Your task to perform on an android device: check the backup settings in the google photos Image 0: 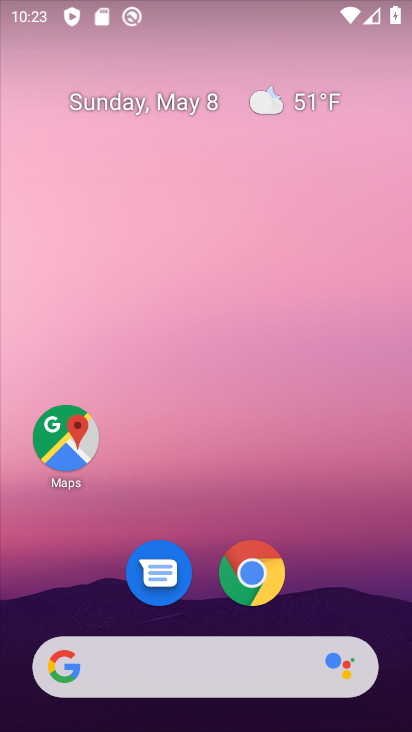
Step 0: drag from (172, 610) to (217, 243)
Your task to perform on an android device: check the backup settings in the google photos Image 1: 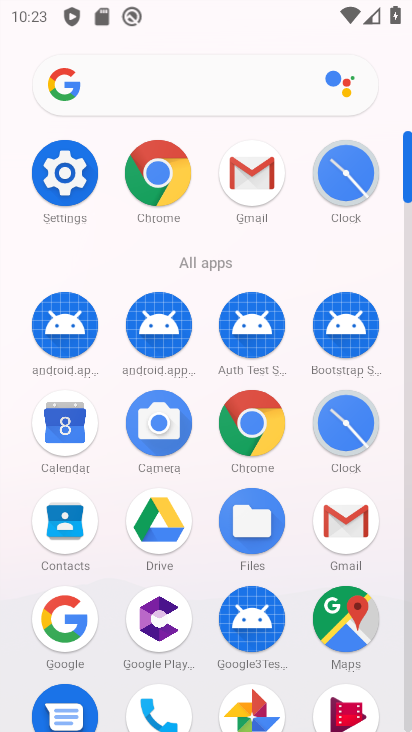
Step 1: click (252, 723)
Your task to perform on an android device: check the backup settings in the google photos Image 2: 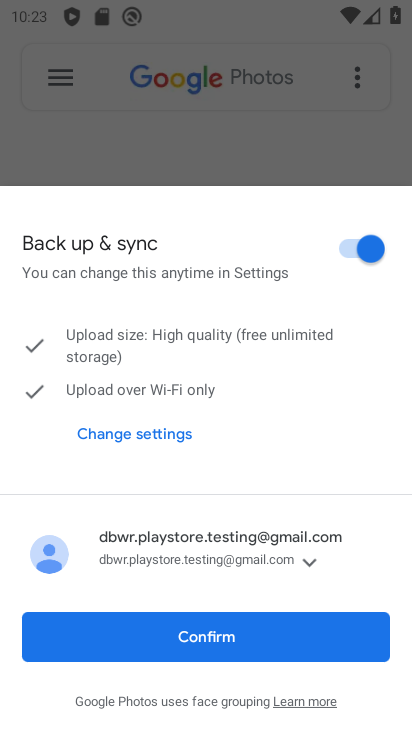
Step 2: click (198, 610)
Your task to perform on an android device: check the backup settings in the google photos Image 3: 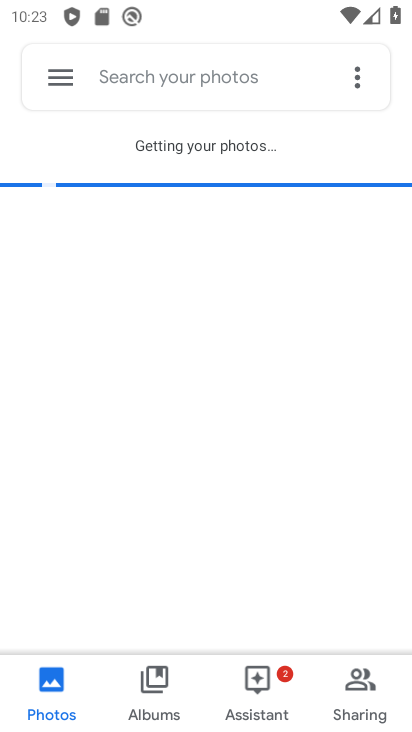
Step 3: click (70, 78)
Your task to perform on an android device: check the backup settings in the google photos Image 4: 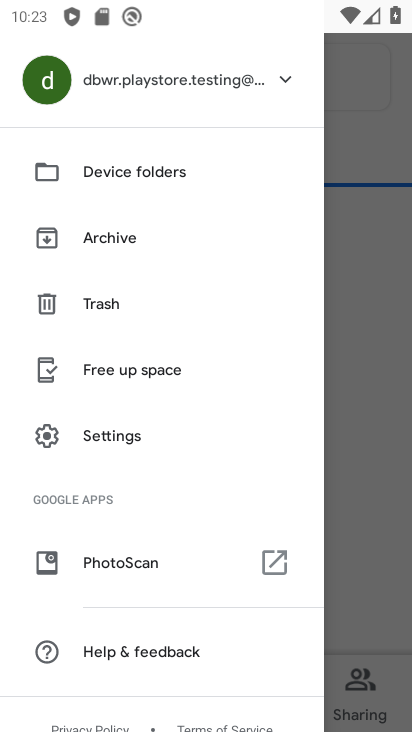
Step 4: click (132, 435)
Your task to perform on an android device: check the backup settings in the google photos Image 5: 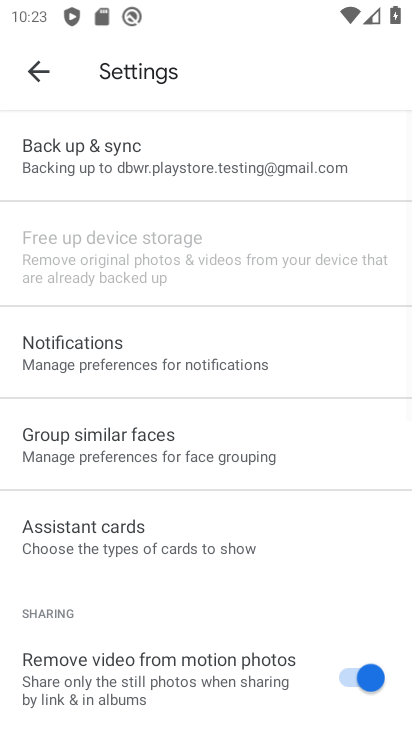
Step 5: click (141, 162)
Your task to perform on an android device: check the backup settings in the google photos Image 6: 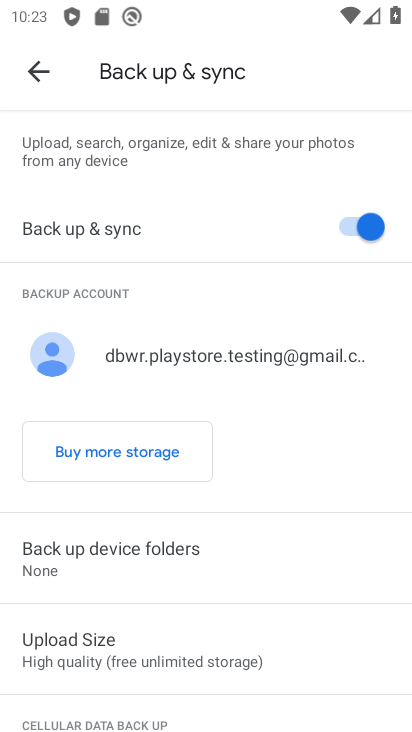
Step 6: task complete